Your task to perform on an android device: Is it going to rain today? Image 0: 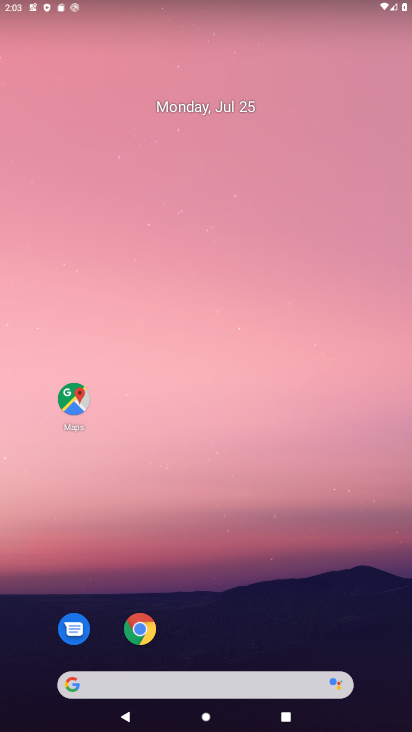
Step 0: drag from (236, 602) to (153, 11)
Your task to perform on an android device: Is it going to rain today? Image 1: 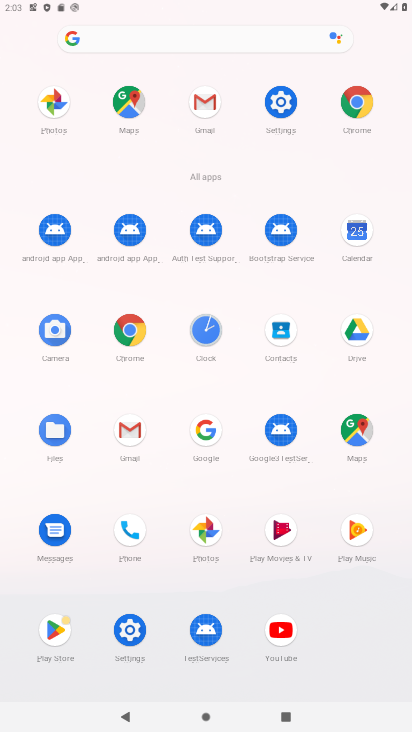
Step 1: click (168, 43)
Your task to perform on an android device: Is it going to rain today? Image 2: 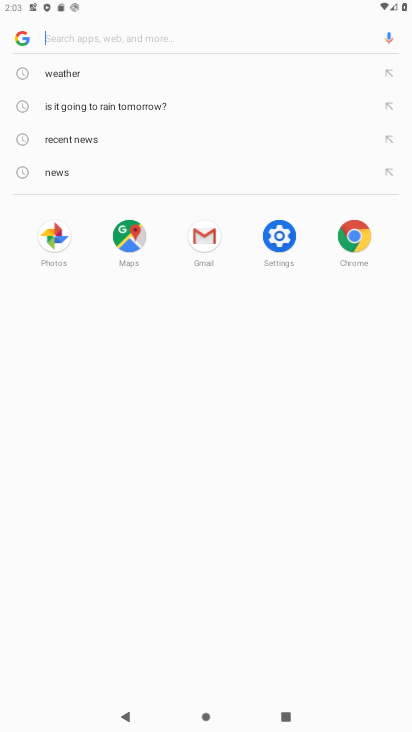
Step 2: type "weather"
Your task to perform on an android device: Is it going to rain today? Image 3: 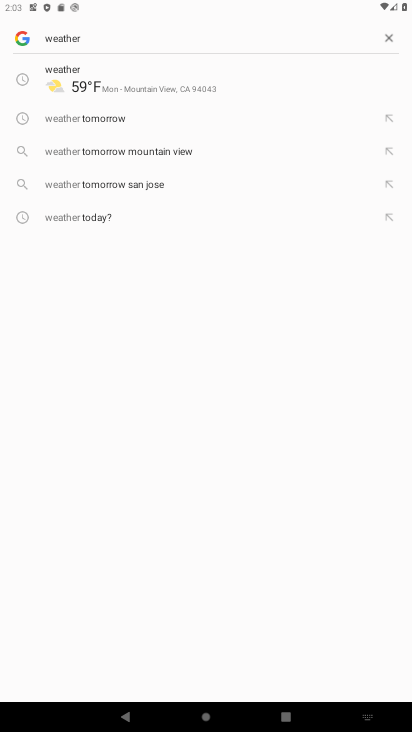
Step 3: click (90, 86)
Your task to perform on an android device: Is it going to rain today? Image 4: 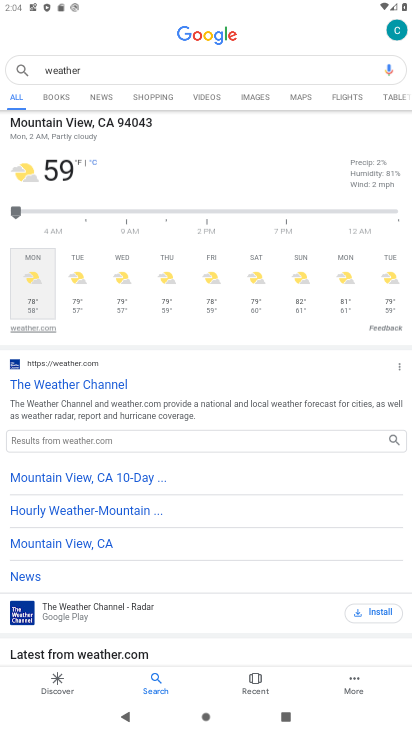
Step 4: task complete